Your task to perform on an android device: open a bookmark in the chrome app Image 0: 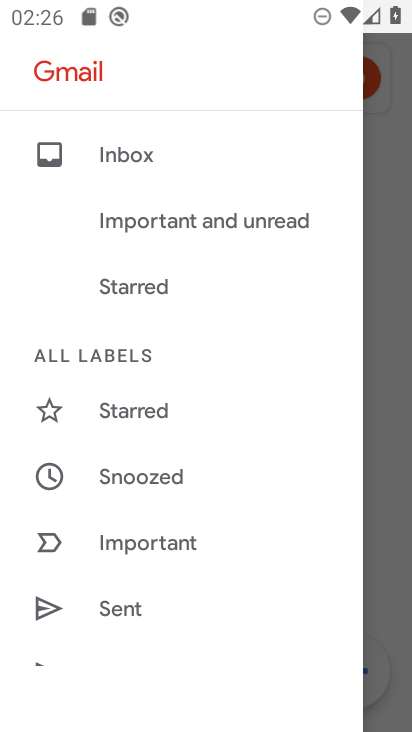
Step 0: press home button
Your task to perform on an android device: open a bookmark in the chrome app Image 1: 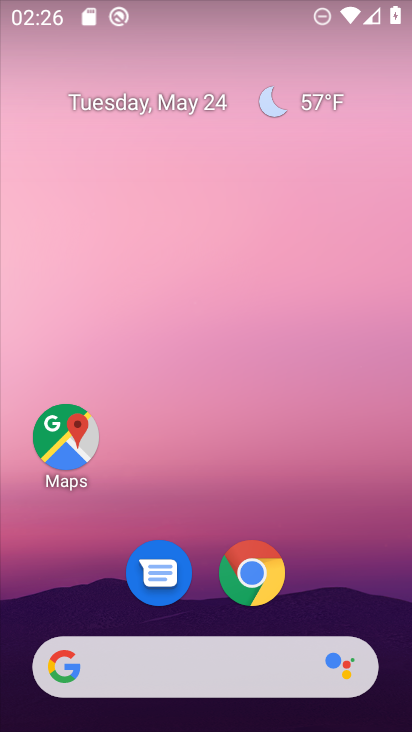
Step 1: drag from (344, 569) to (317, 184)
Your task to perform on an android device: open a bookmark in the chrome app Image 2: 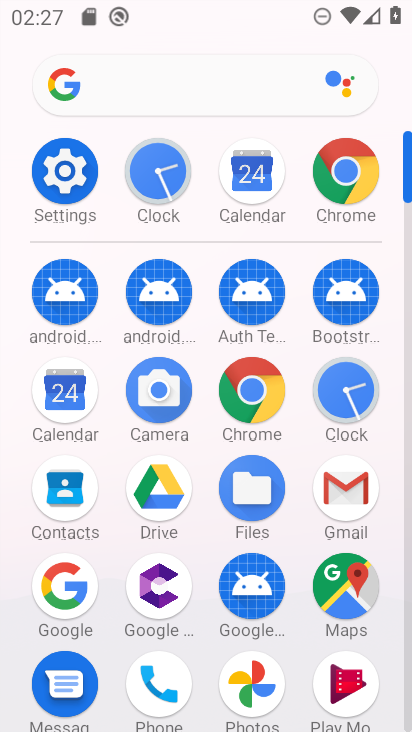
Step 2: click (358, 179)
Your task to perform on an android device: open a bookmark in the chrome app Image 3: 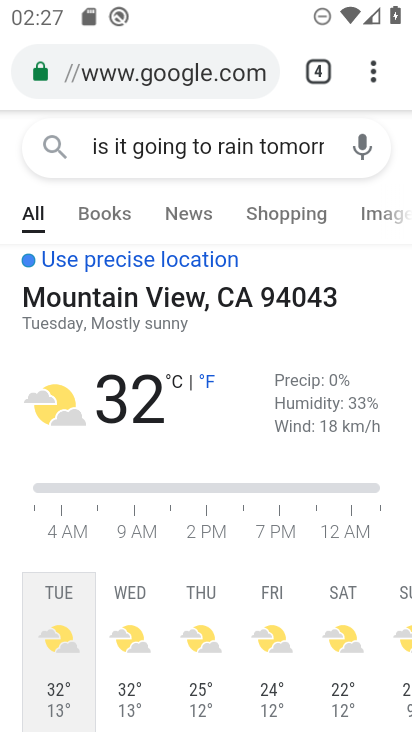
Step 3: click (375, 76)
Your task to perform on an android device: open a bookmark in the chrome app Image 4: 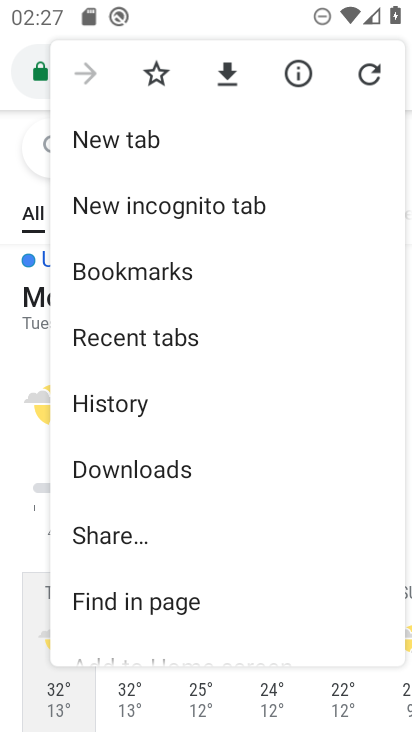
Step 4: click (165, 266)
Your task to perform on an android device: open a bookmark in the chrome app Image 5: 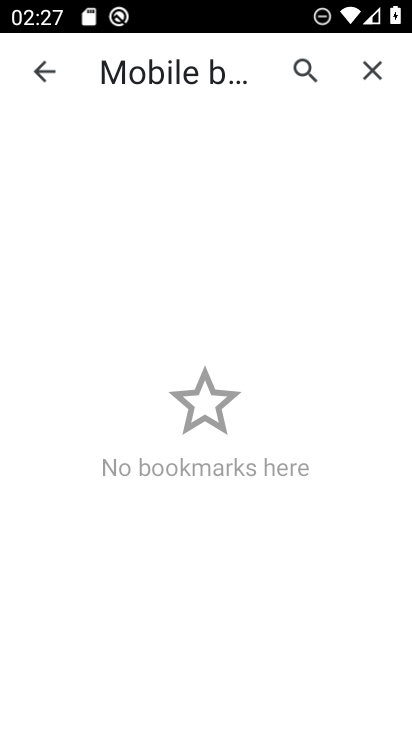
Step 5: task complete